Your task to perform on an android device: Search for sushi restaurants on Maps Image 0: 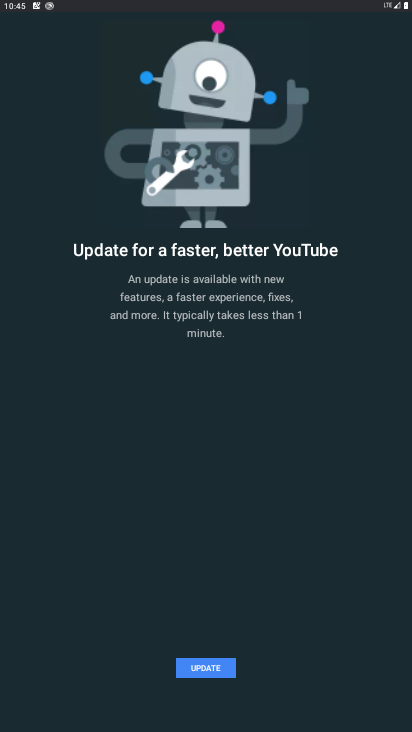
Step 0: press home button
Your task to perform on an android device: Search for sushi restaurants on Maps Image 1: 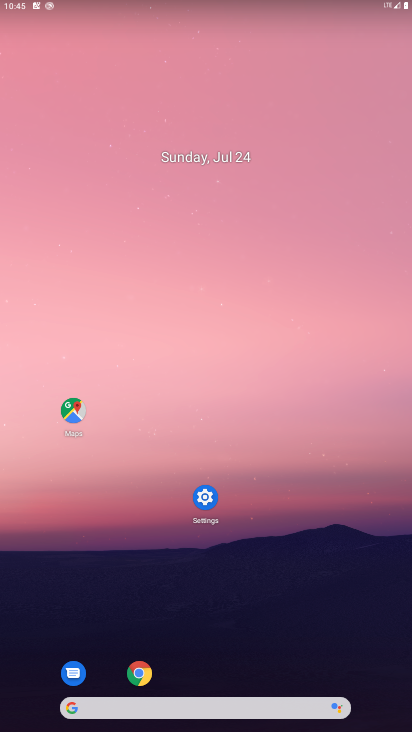
Step 1: click (192, 712)
Your task to perform on an android device: Search for sushi restaurants on Maps Image 2: 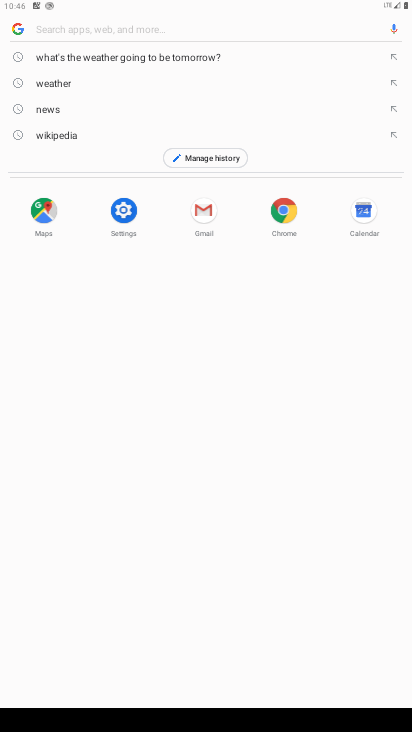
Step 2: type " sushi restaurants "
Your task to perform on an android device: Search for sushi restaurants on Maps Image 3: 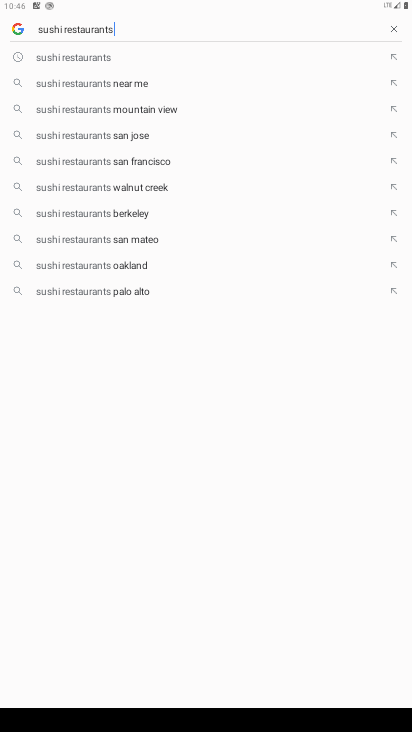
Step 3: type " sushi restaurants "
Your task to perform on an android device: Search for sushi restaurants on Maps Image 4: 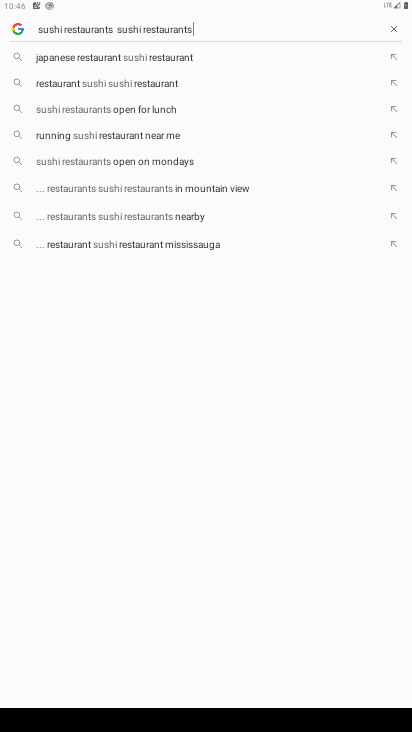
Step 4: press enter
Your task to perform on an android device: Search for sushi restaurants on Maps Image 5: 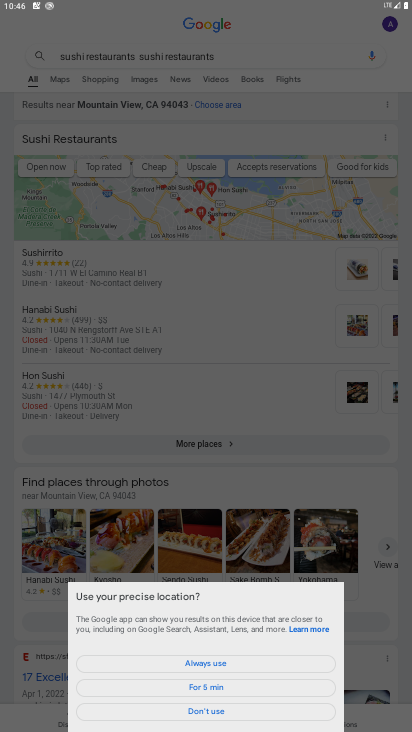
Step 5: click (202, 662)
Your task to perform on an android device: Search for sushi restaurants on Maps Image 6: 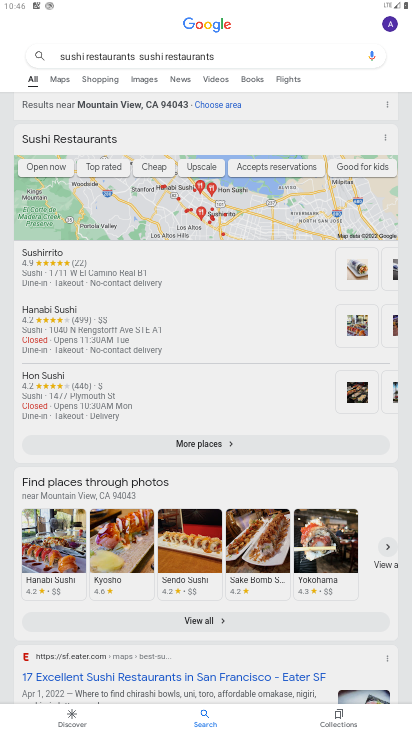
Step 6: task complete